Your task to perform on an android device: What's the weather? Image 0: 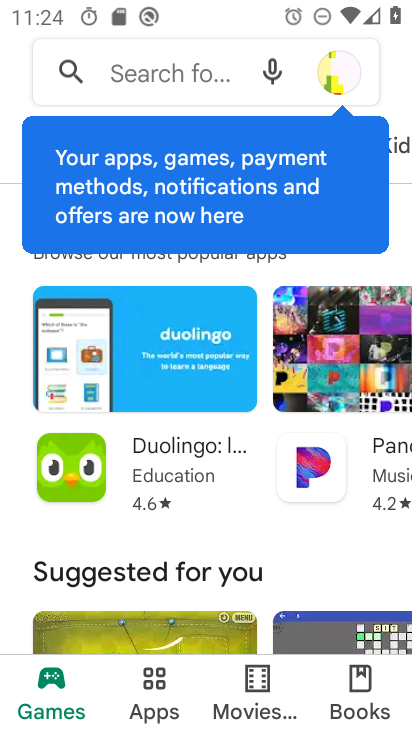
Step 0: press home button
Your task to perform on an android device: What's the weather? Image 1: 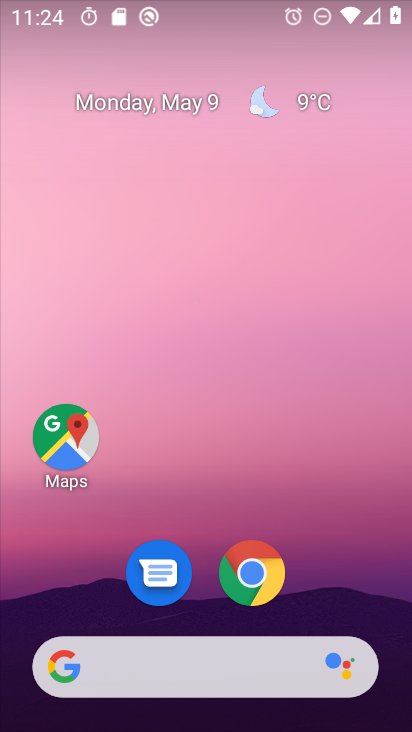
Step 1: click (300, 99)
Your task to perform on an android device: What's the weather? Image 2: 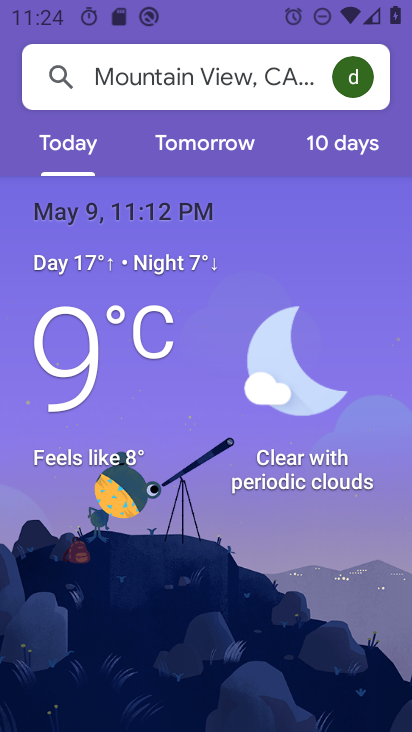
Step 2: task complete